Your task to perform on an android device: turn off location Image 0: 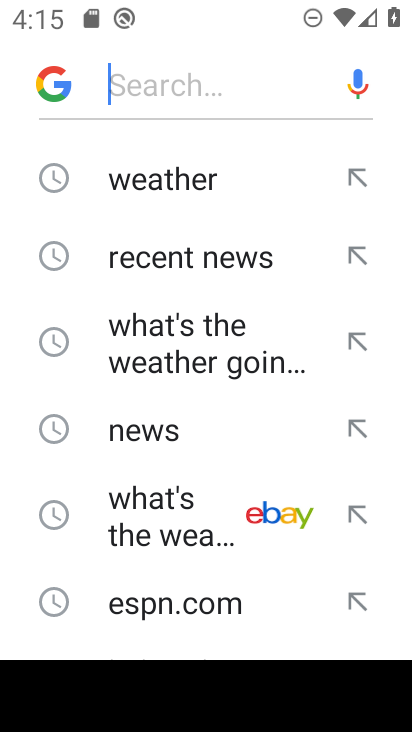
Step 0: press home button
Your task to perform on an android device: turn off location Image 1: 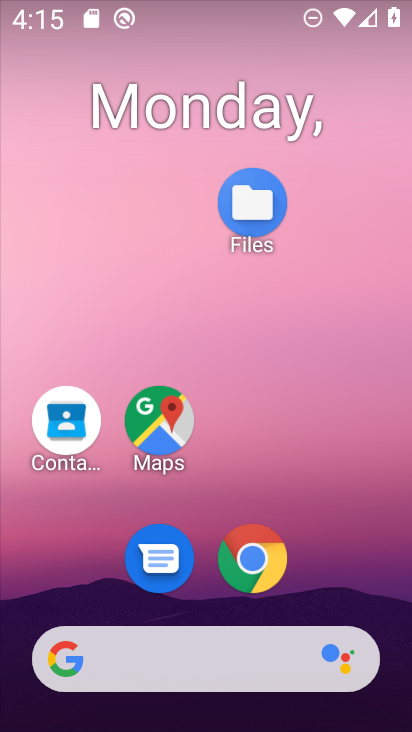
Step 1: drag from (289, 628) to (299, 14)
Your task to perform on an android device: turn off location Image 2: 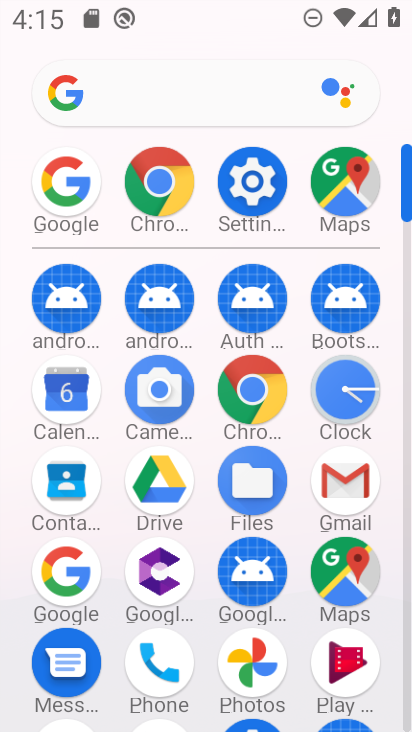
Step 2: click (259, 182)
Your task to perform on an android device: turn off location Image 3: 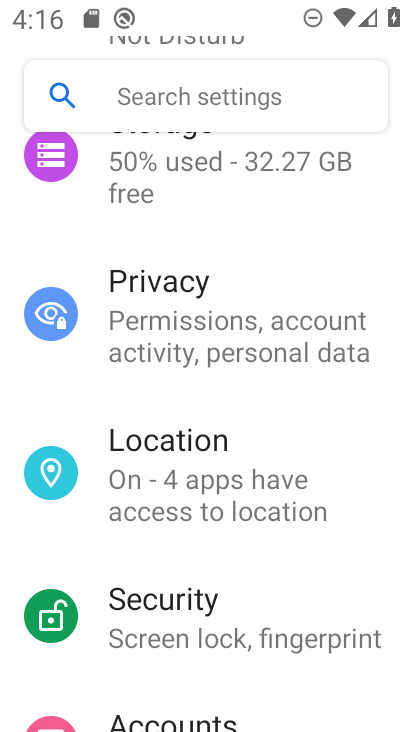
Step 3: click (209, 496)
Your task to perform on an android device: turn off location Image 4: 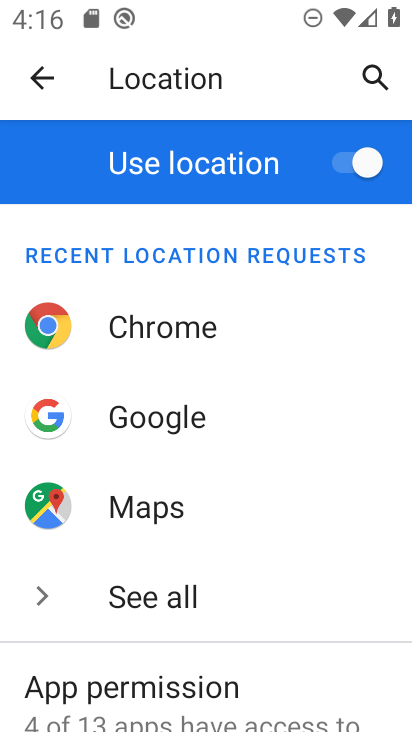
Step 4: click (359, 178)
Your task to perform on an android device: turn off location Image 5: 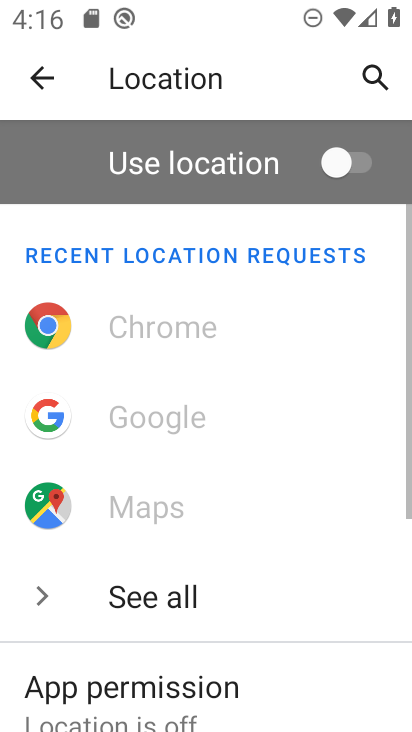
Step 5: task complete